Your task to perform on an android device: open app "Google Drive" (install if not already installed) Image 0: 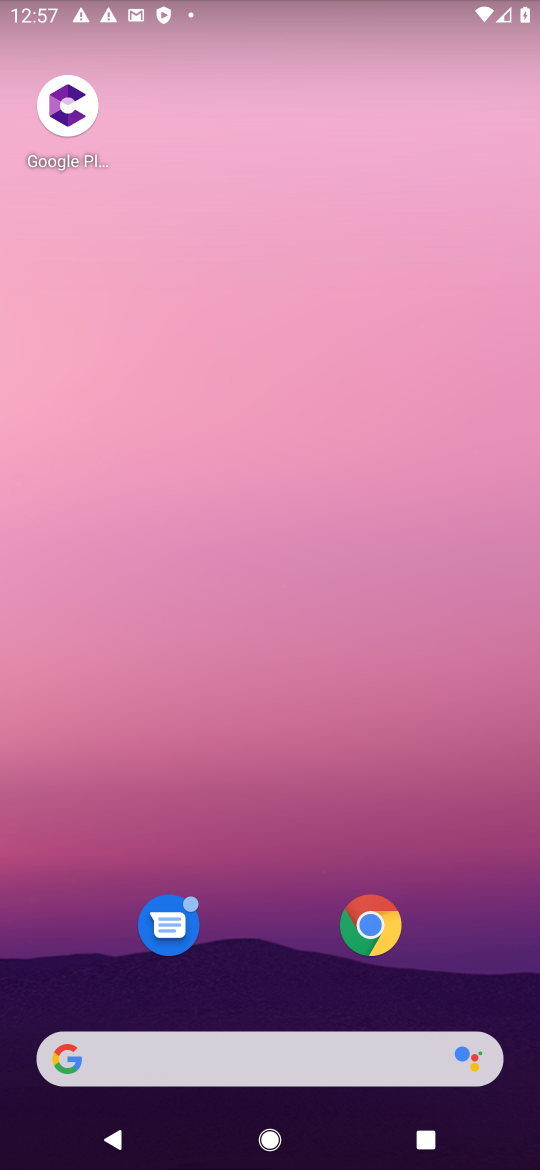
Step 0: drag from (383, 1065) to (168, 20)
Your task to perform on an android device: open app "Google Drive" (install if not already installed) Image 1: 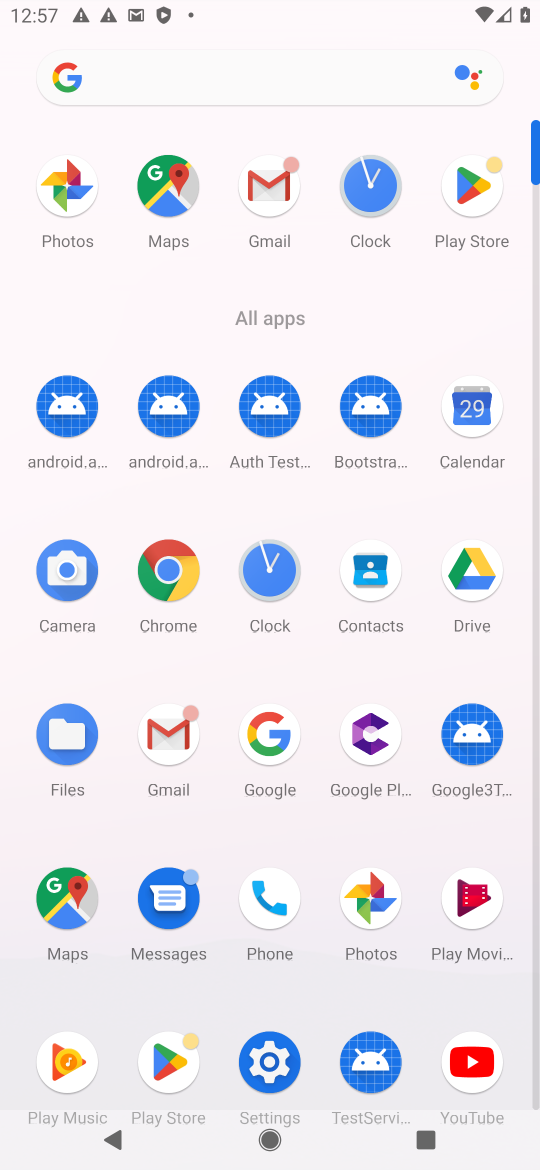
Step 1: click (183, 1052)
Your task to perform on an android device: open app "Google Drive" (install if not already installed) Image 2: 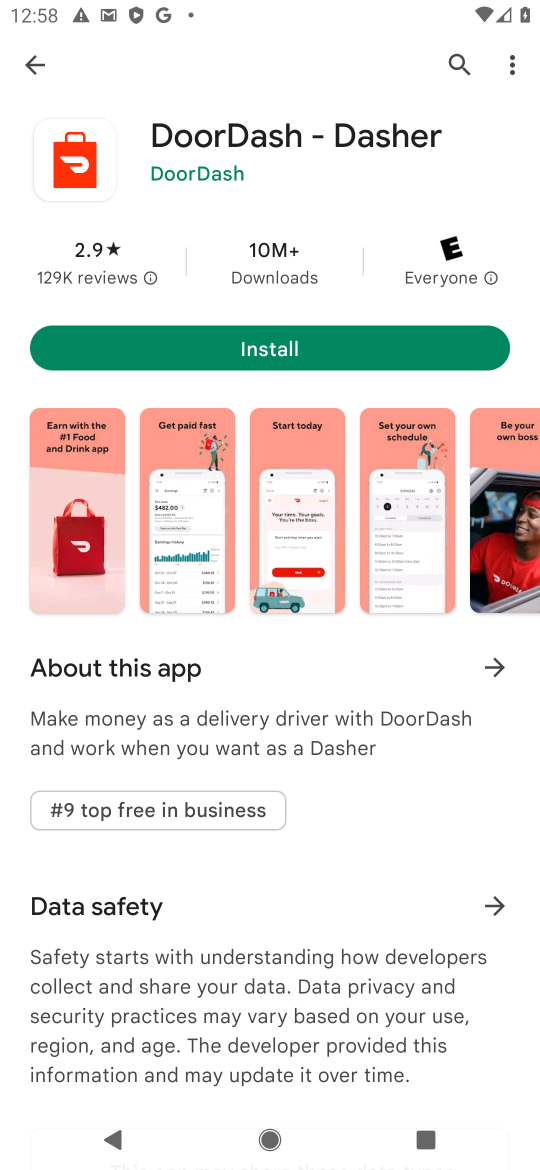
Step 2: click (456, 62)
Your task to perform on an android device: open app "Google Drive" (install if not already installed) Image 3: 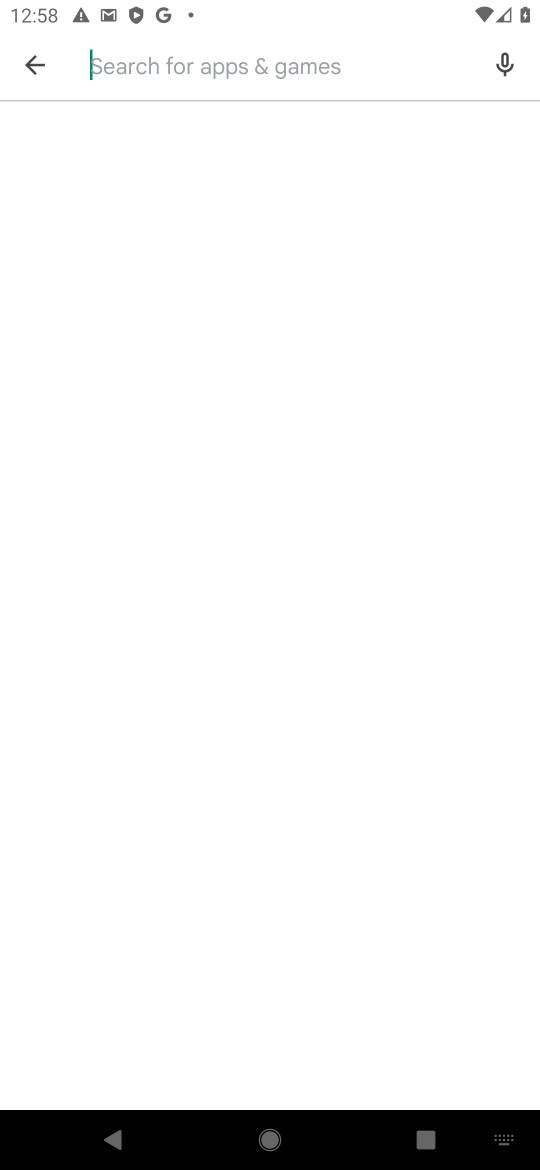
Step 3: type "googlr drive"
Your task to perform on an android device: open app "Google Drive" (install if not already installed) Image 4: 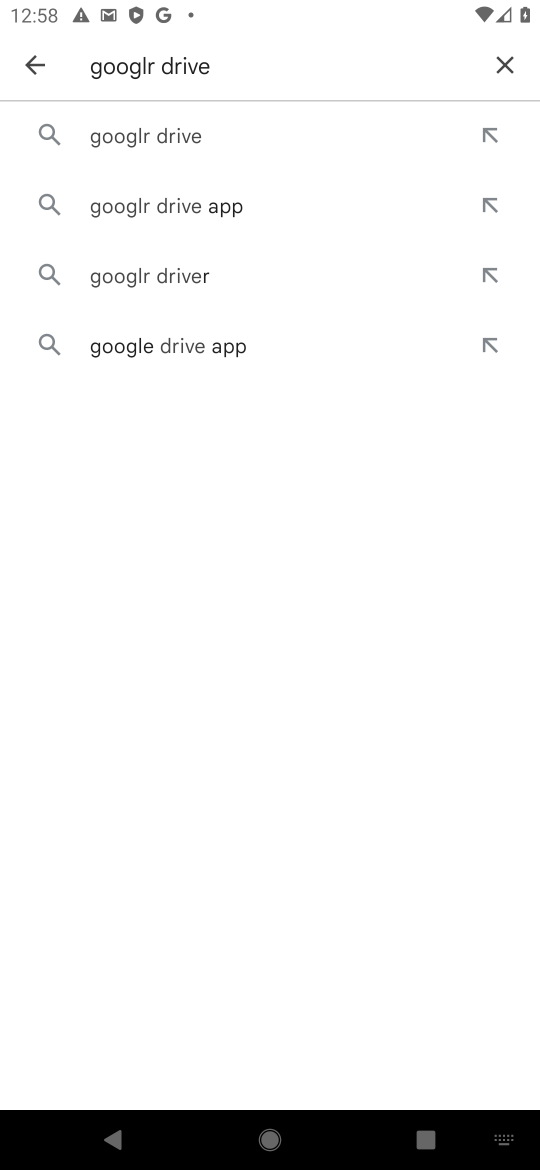
Step 4: click (153, 141)
Your task to perform on an android device: open app "Google Drive" (install if not already installed) Image 5: 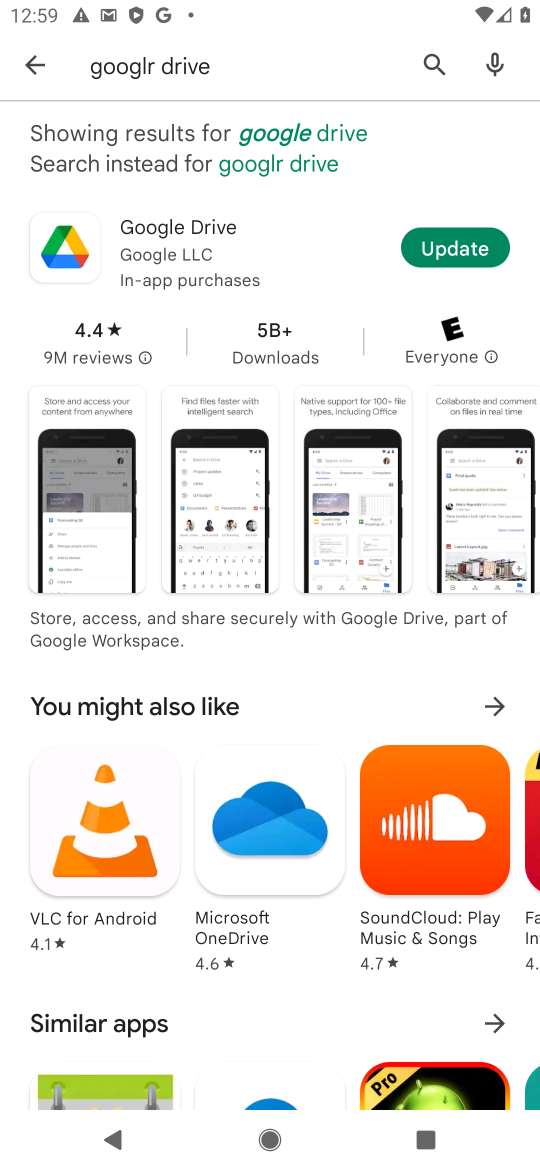
Step 5: task complete